Your task to perform on an android device: manage bookmarks in the chrome app Image 0: 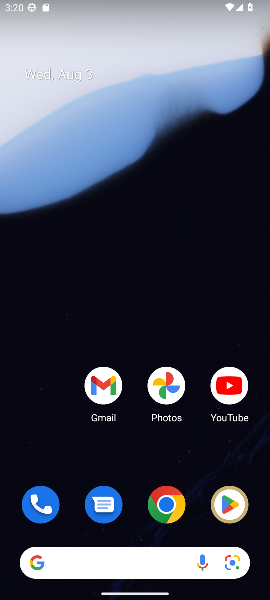
Step 0: click (166, 503)
Your task to perform on an android device: manage bookmarks in the chrome app Image 1: 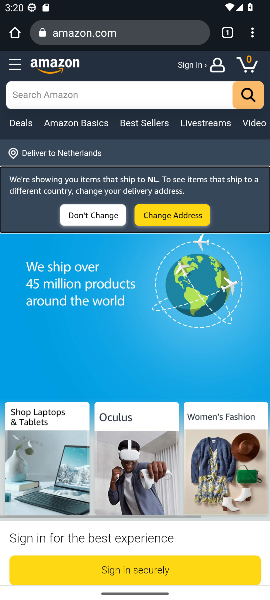
Step 1: click (253, 33)
Your task to perform on an android device: manage bookmarks in the chrome app Image 2: 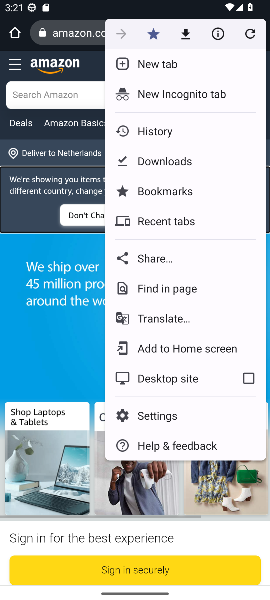
Step 2: click (150, 191)
Your task to perform on an android device: manage bookmarks in the chrome app Image 3: 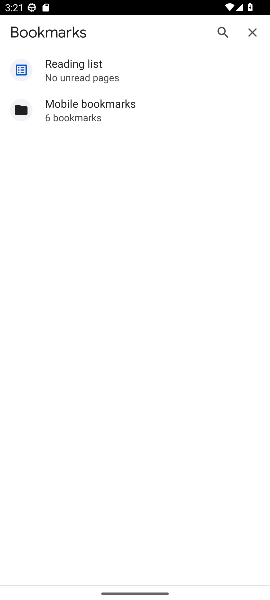
Step 3: click (55, 116)
Your task to perform on an android device: manage bookmarks in the chrome app Image 4: 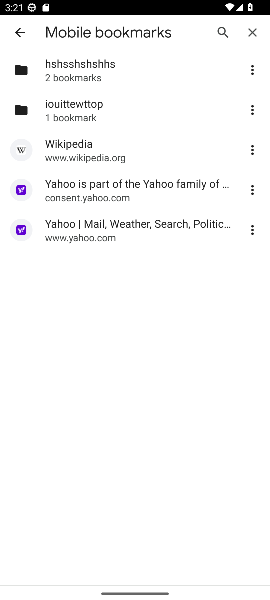
Step 4: click (248, 145)
Your task to perform on an android device: manage bookmarks in the chrome app Image 5: 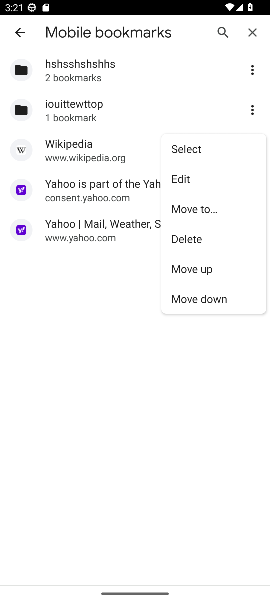
Step 5: click (219, 151)
Your task to perform on an android device: manage bookmarks in the chrome app Image 6: 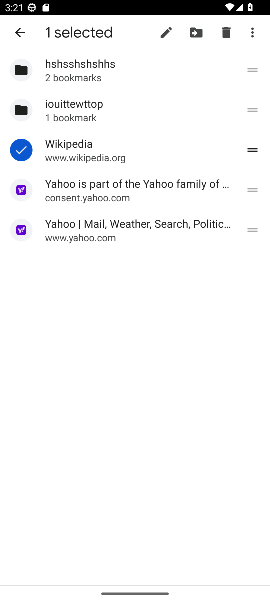
Step 6: click (121, 191)
Your task to perform on an android device: manage bookmarks in the chrome app Image 7: 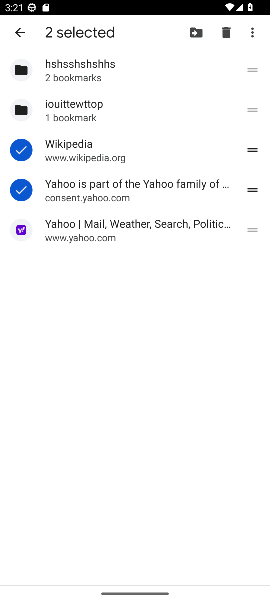
Step 7: click (91, 237)
Your task to perform on an android device: manage bookmarks in the chrome app Image 8: 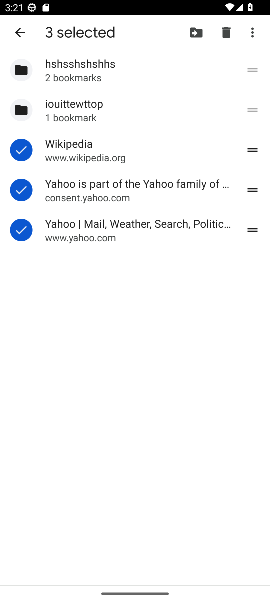
Step 8: click (194, 34)
Your task to perform on an android device: manage bookmarks in the chrome app Image 9: 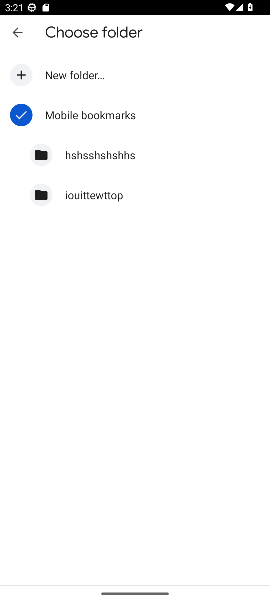
Step 9: click (98, 195)
Your task to perform on an android device: manage bookmarks in the chrome app Image 10: 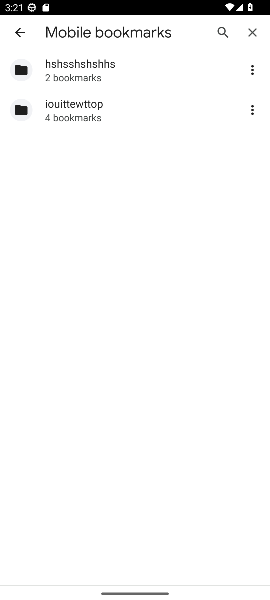
Step 10: task complete